Your task to perform on an android device: Do I have any events today? Image 0: 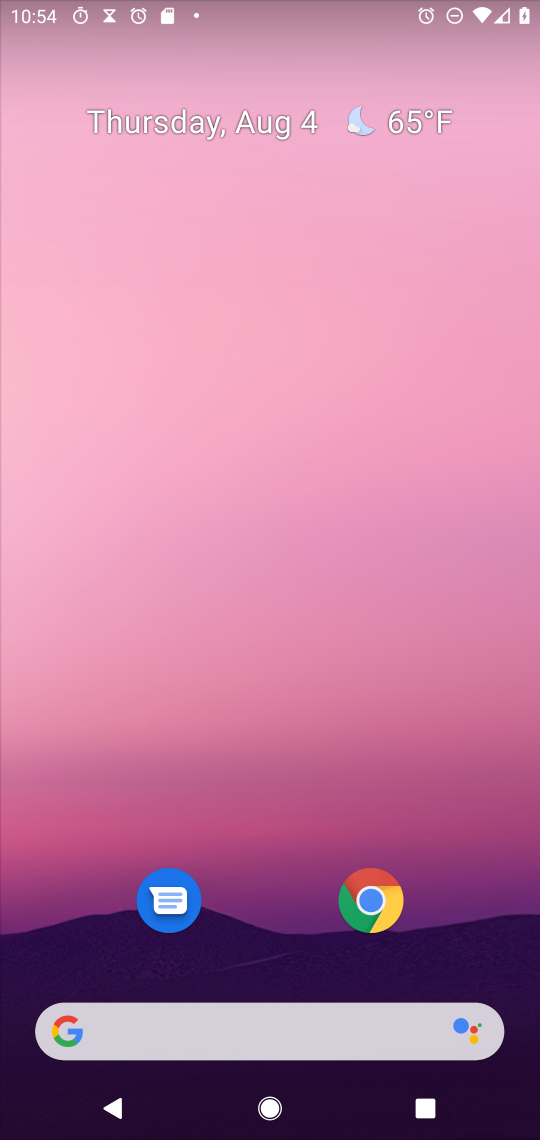
Step 0: drag from (207, 1021) to (194, 311)
Your task to perform on an android device: Do I have any events today? Image 1: 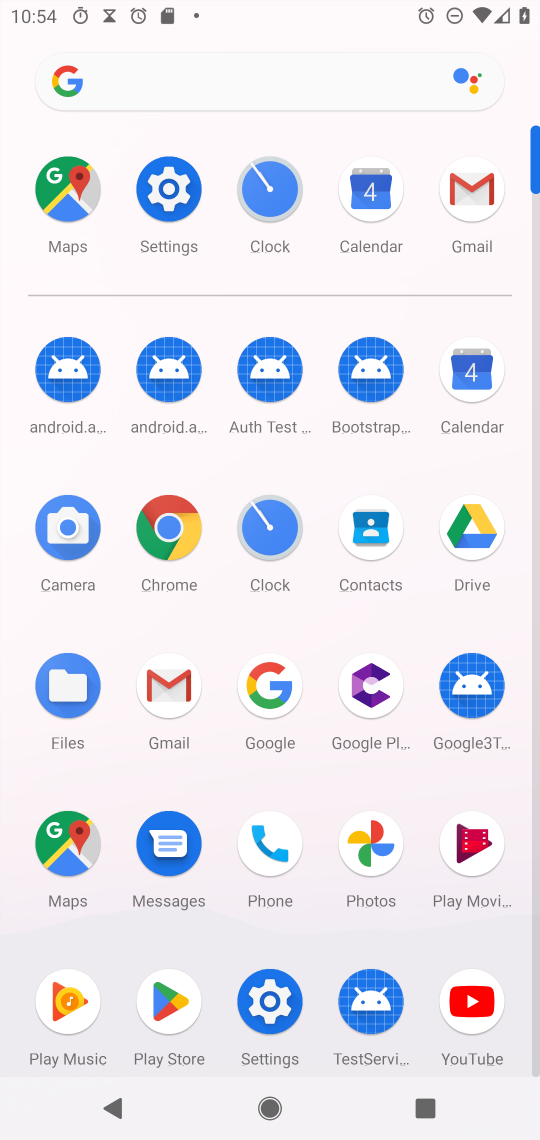
Step 1: click (470, 373)
Your task to perform on an android device: Do I have any events today? Image 2: 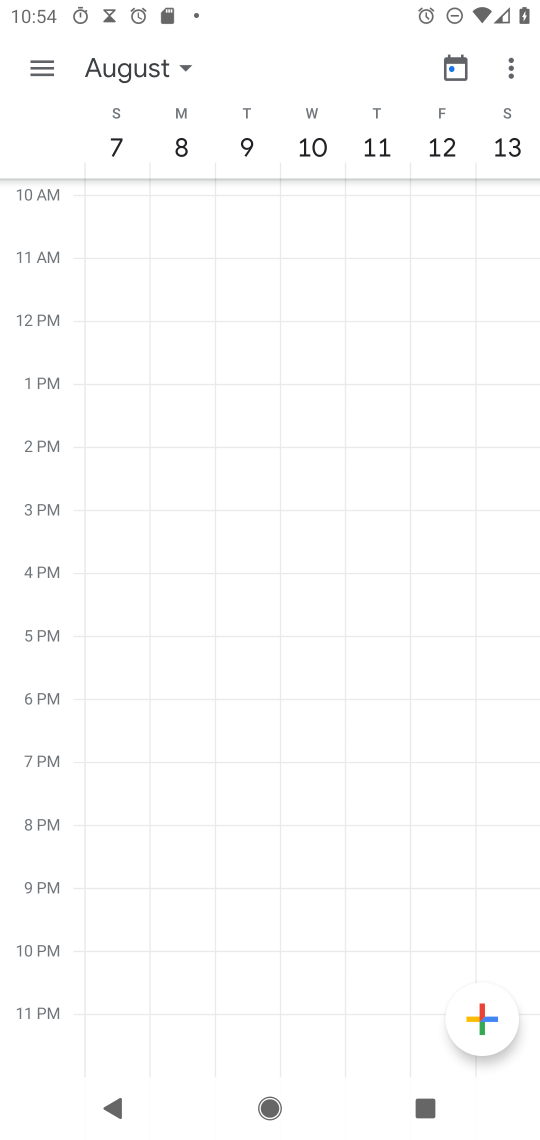
Step 2: click (459, 72)
Your task to perform on an android device: Do I have any events today? Image 3: 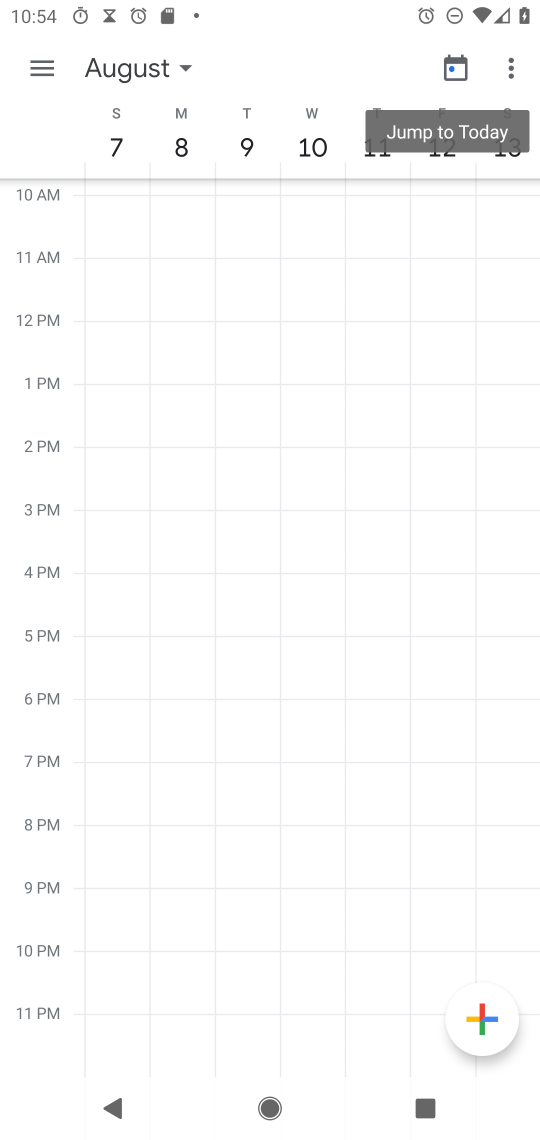
Step 3: click (181, 58)
Your task to perform on an android device: Do I have any events today? Image 4: 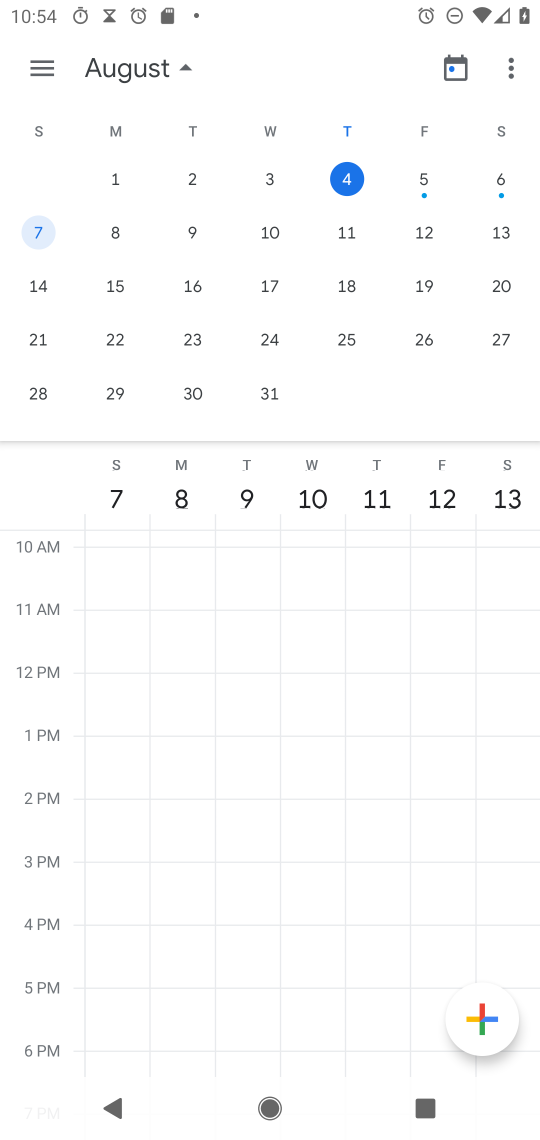
Step 4: click (355, 189)
Your task to perform on an android device: Do I have any events today? Image 5: 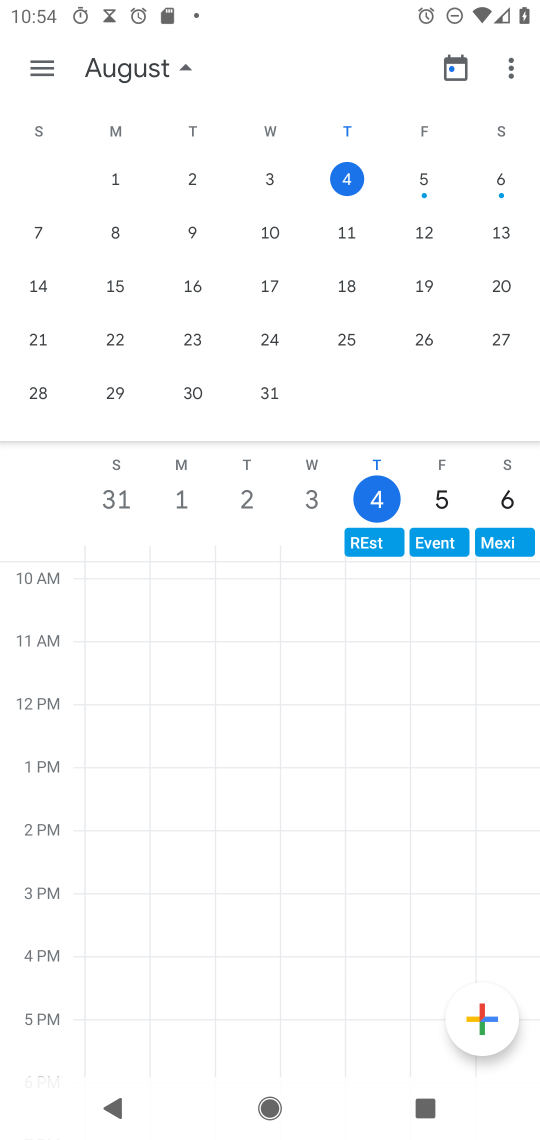
Step 5: click (35, 69)
Your task to perform on an android device: Do I have any events today? Image 6: 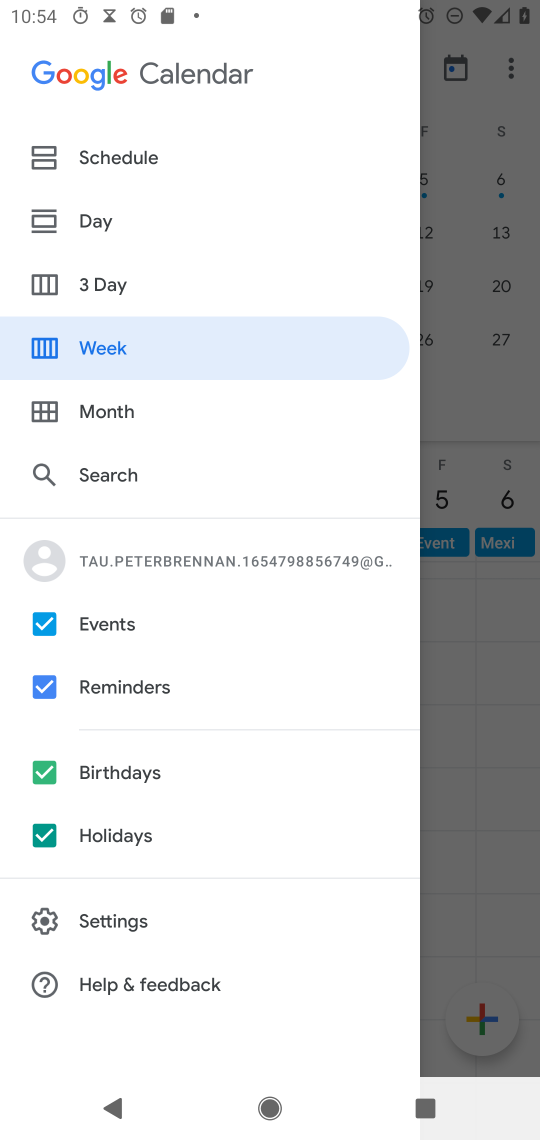
Step 6: click (113, 156)
Your task to perform on an android device: Do I have any events today? Image 7: 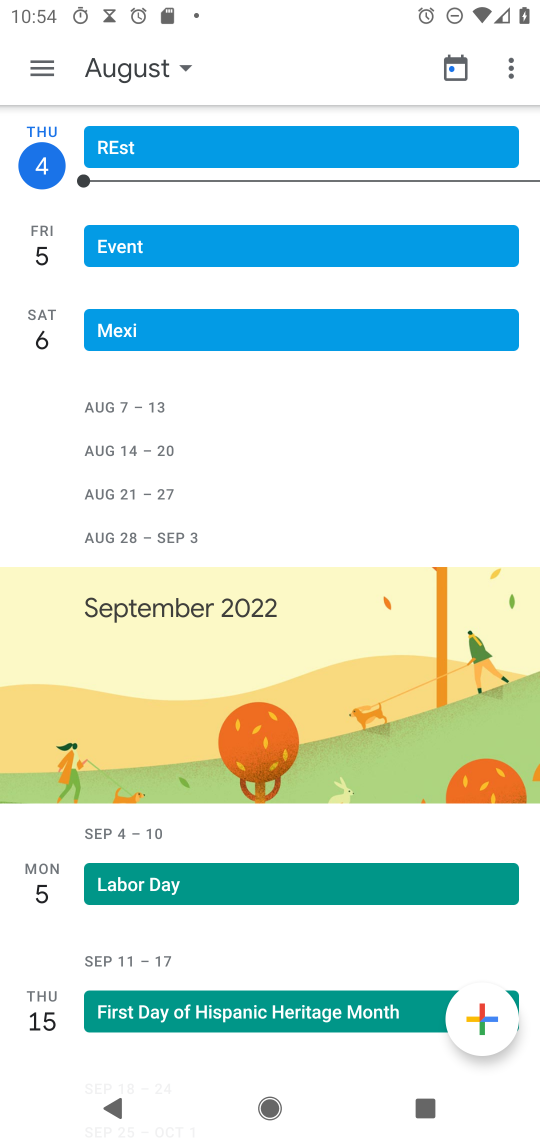
Step 7: task complete